Your task to perform on an android device: Go to Yahoo.com Image 0: 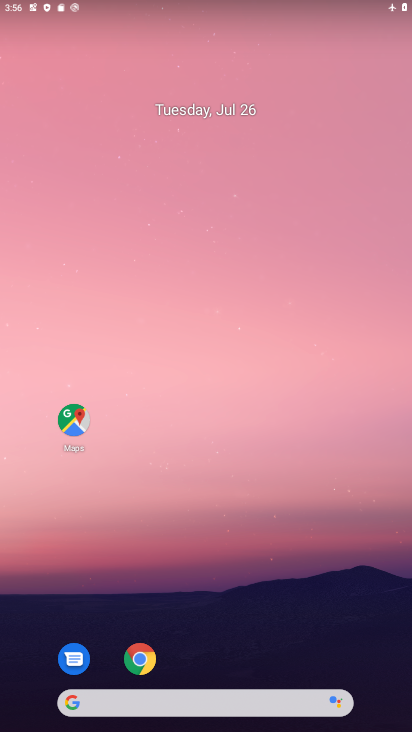
Step 0: drag from (244, 669) to (329, 0)
Your task to perform on an android device: Go to Yahoo.com Image 1: 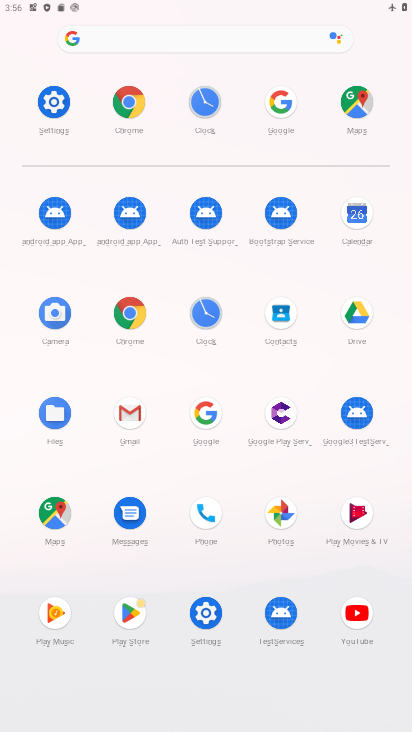
Step 1: click (122, 95)
Your task to perform on an android device: Go to Yahoo.com Image 2: 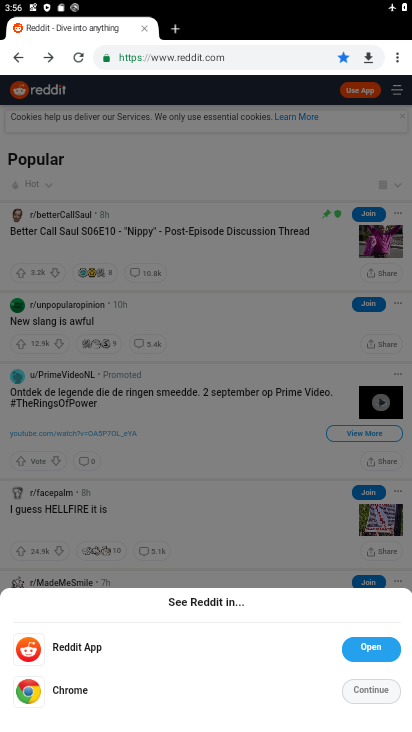
Step 2: click (12, 51)
Your task to perform on an android device: Go to Yahoo.com Image 3: 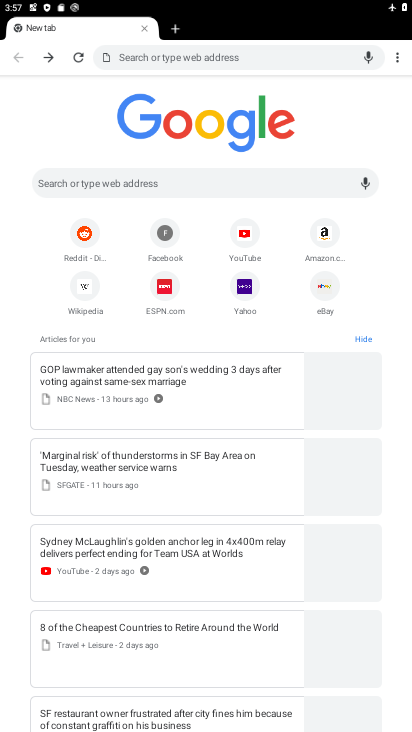
Step 3: click (249, 288)
Your task to perform on an android device: Go to Yahoo.com Image 4: 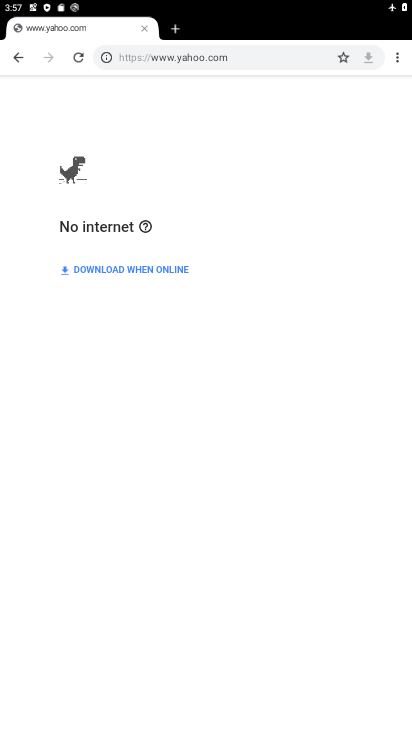
Step 4: task complete